Your task to perform on an android device: Show me recent news Image 0: 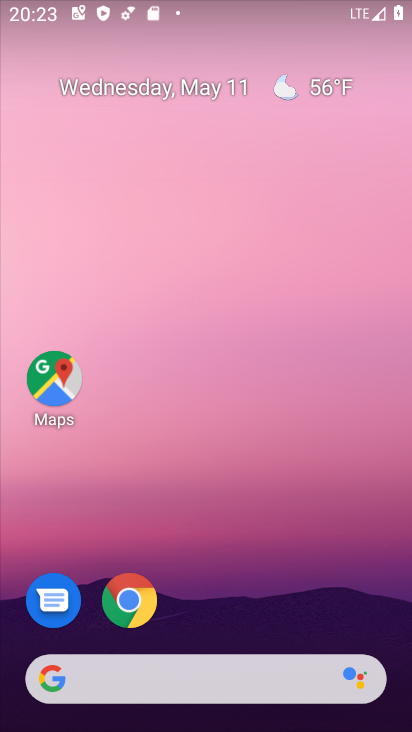
Step 0: drag from (240, 526) to (188, 22)
Your task to perform on an android device: Show me recent news Image 1: 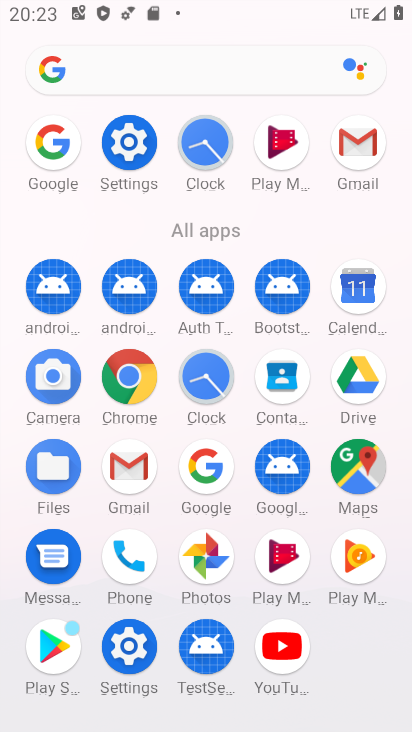
Step 1: click (201, 467)
Your task to perform on an android device: Show me recent news Image 2: 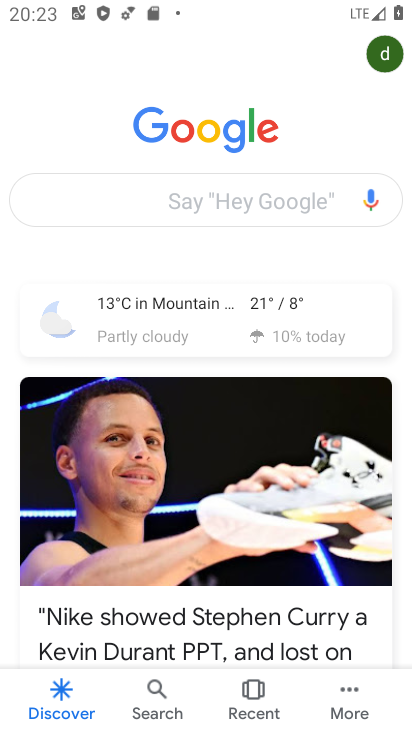
Step 2: click (200, 185)
Your task to perform on an android device: Show me recent news Image 3: 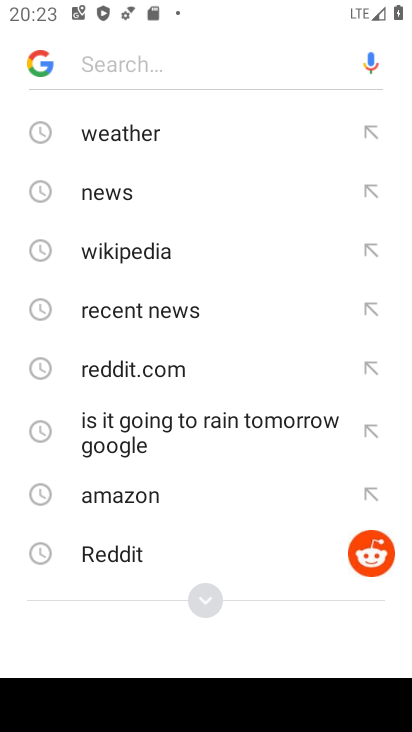
Step 3: click (187, 309)
Your task to perform on an android device: Show me recent news Image 4: 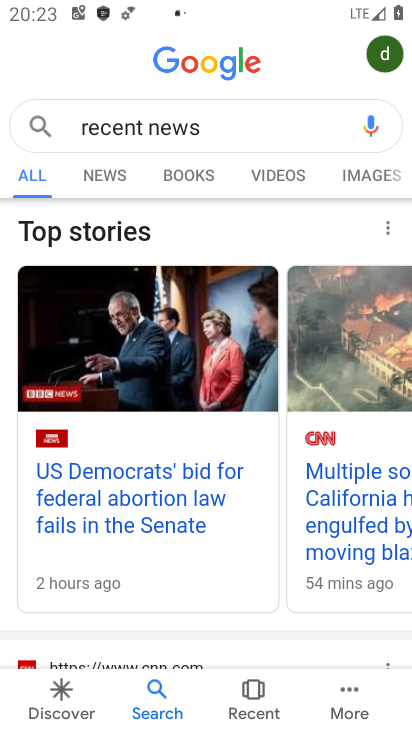
Step 4: task complete